Your task to perform on an android device: Open ESPN.com Image 0: 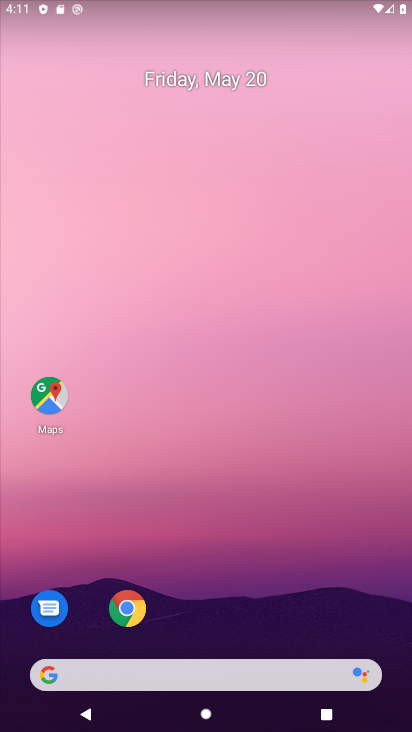
Step 0: click (134, 617)
Your task to perform on an android device: Open ESPN.com Image 1: 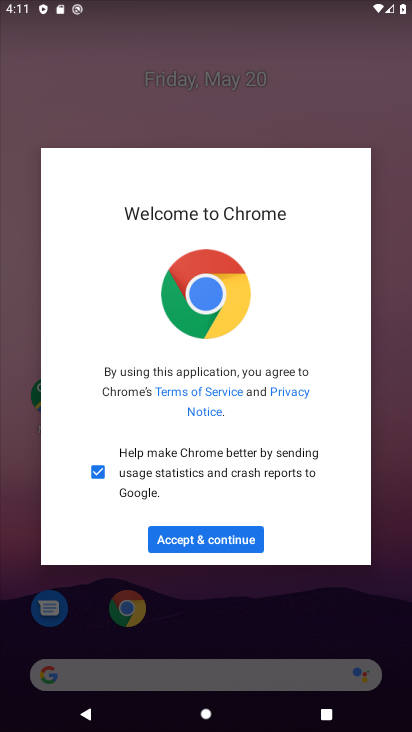
Step 1: click (203, 537)
Your task to perform on an android device: Open ESPN.com Image 2: 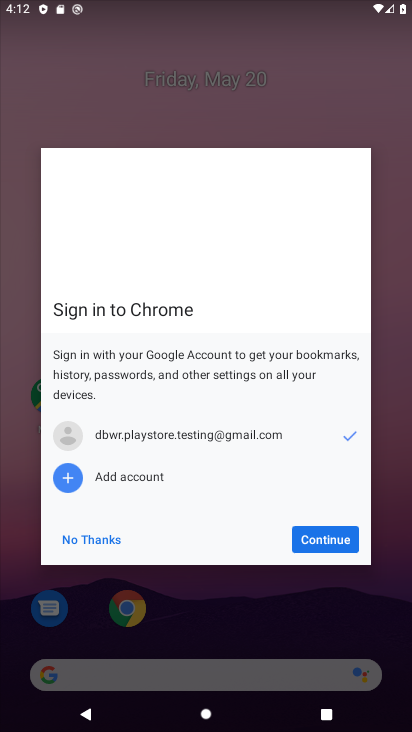
Step 2: click (315, 539)
Your task to perform on an android device: Open ESPN.com Image 3: 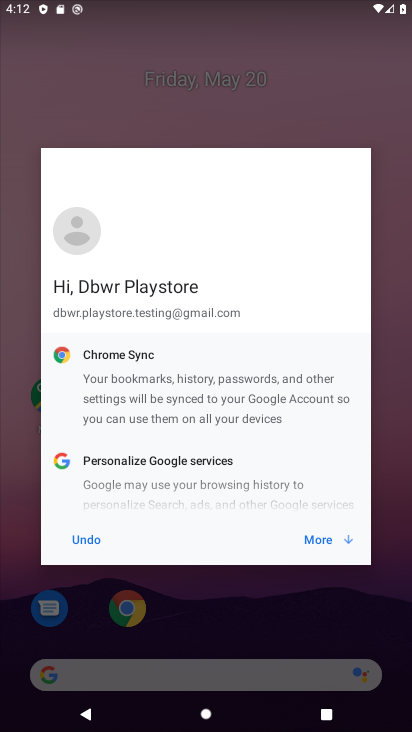
Step 3: click (318, 533)
Your task to perform on an android device: Open ESPN.com Image 4: 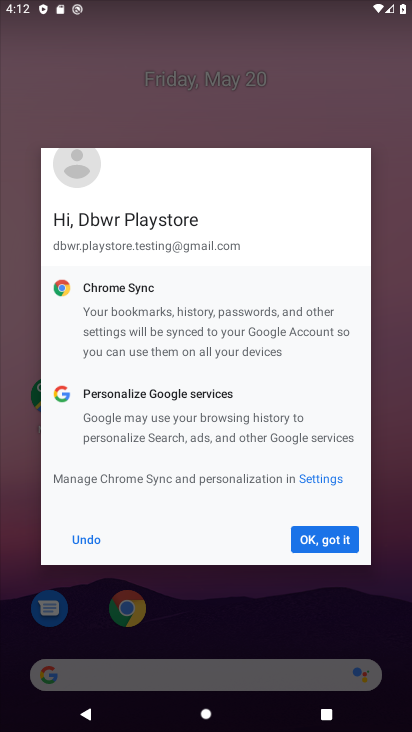
Step 4: click (317, 536)
Your task to perform on an android device: Open ESPN.com Image 5: 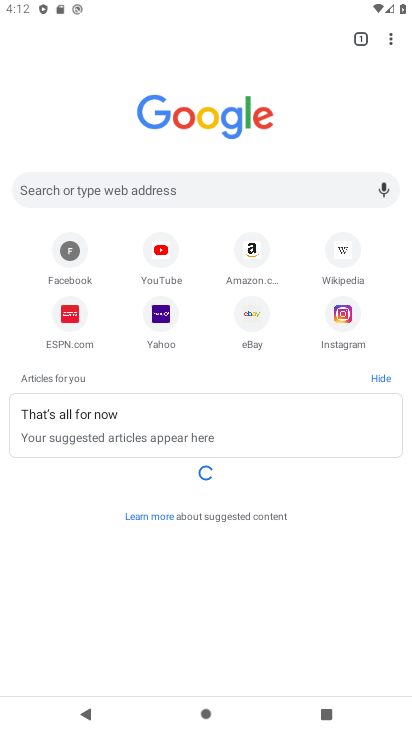
Step 5: click (70, 322)
Your task to perform on an android device: Open ESPN.com Image 6: 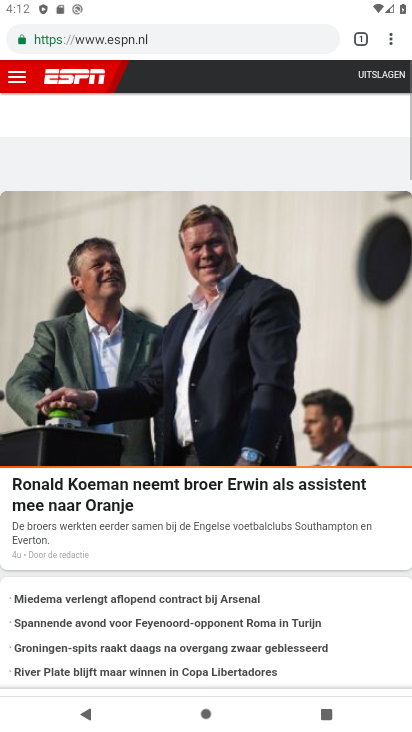
Step 6: task complete